Your task to perform on an android device: Open Maps and search for coffee Image 0: 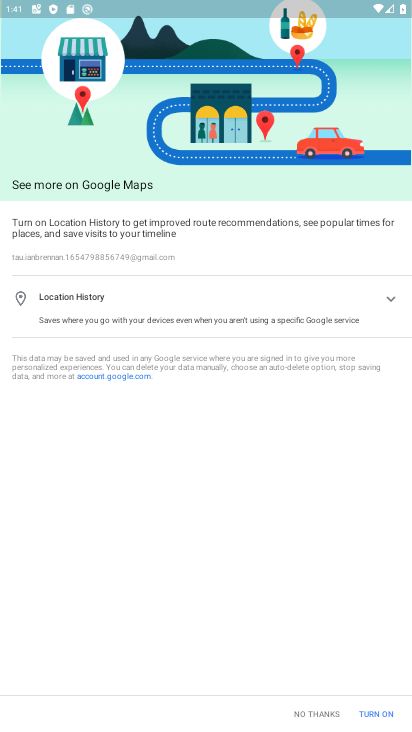
Step 0: click (318, 719)
Your task to perform on an android device: Open Maps and search for coffee Image 1: 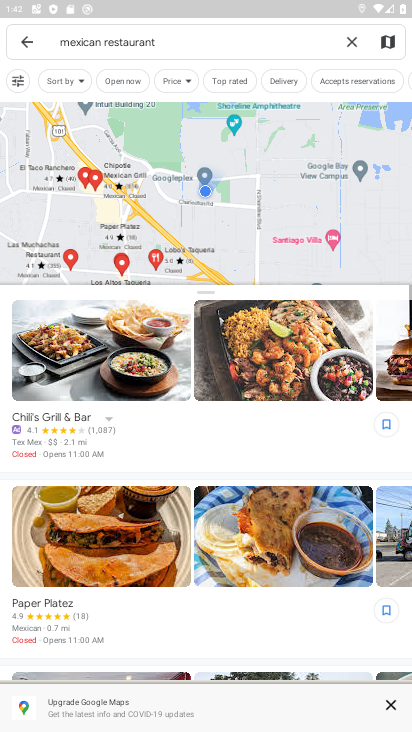
Step 1: click (355, 42)
Your task to perform on an android device: Open Maps and search for coffee Image 2: 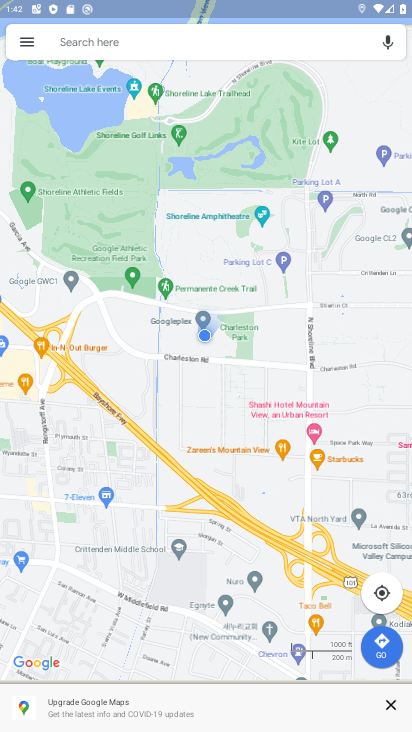
Step 2: click (146, 37)
Your task to perform on an android device: Open Maps and search for coffee Image 3: 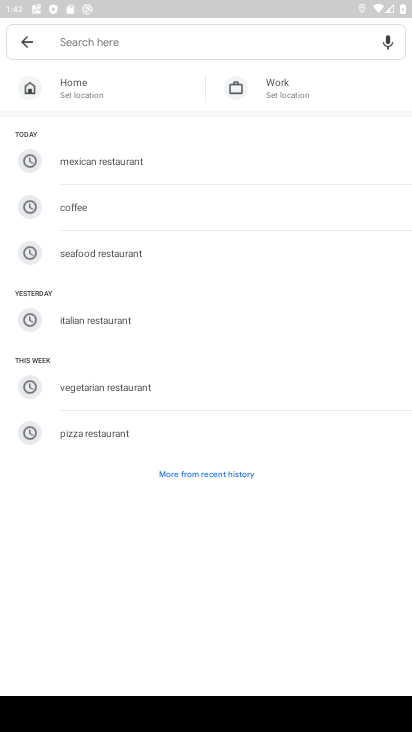
Step 3: click (95, 213)
Your task to perform on an android device: Open Maps and search for coffee Image 4: 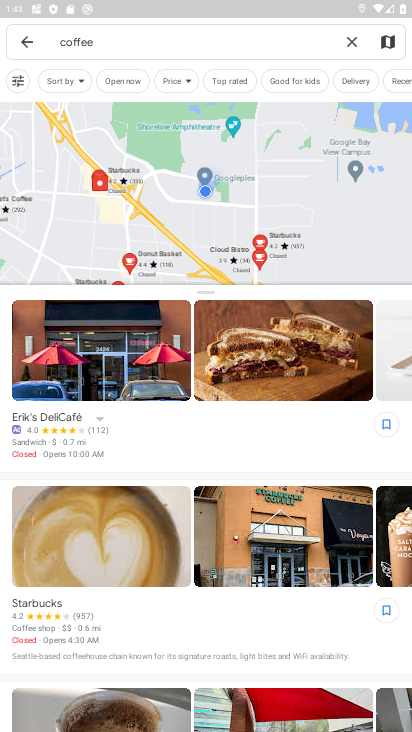
Step 4: task complete